Your task to perform on an android device: Open CNN.com Image 0: 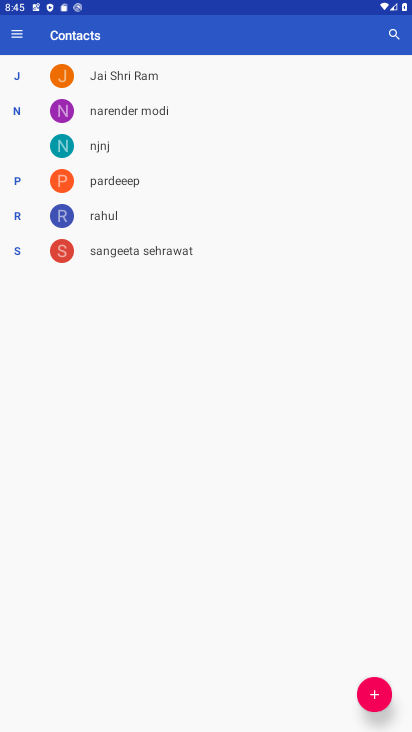
Step 0: press home button
Your task to perform on an android device: Open CNN.com Image 1: 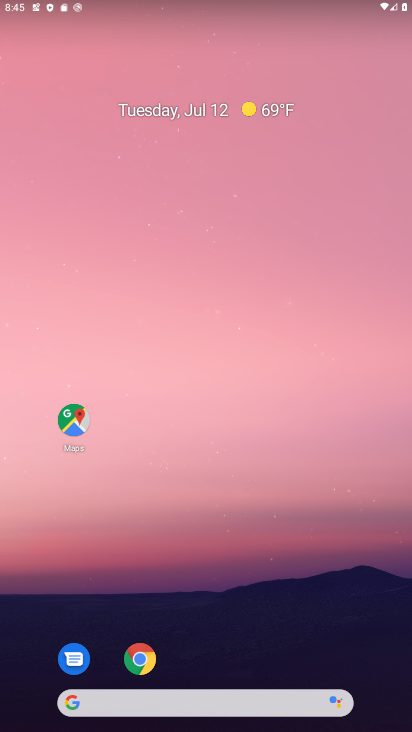
Step 1: click (143, 657)
Your task to perform on an android device: Open CNN.com Image 2: 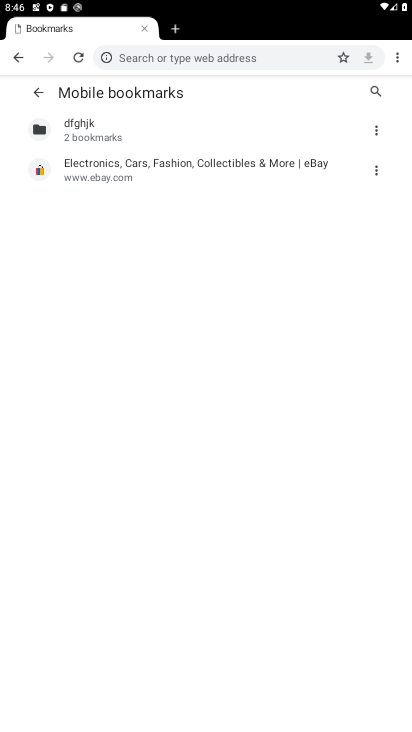
Step 2: click (397, 60)
Your task to perform on an android device: Open CNN.com Image 3: 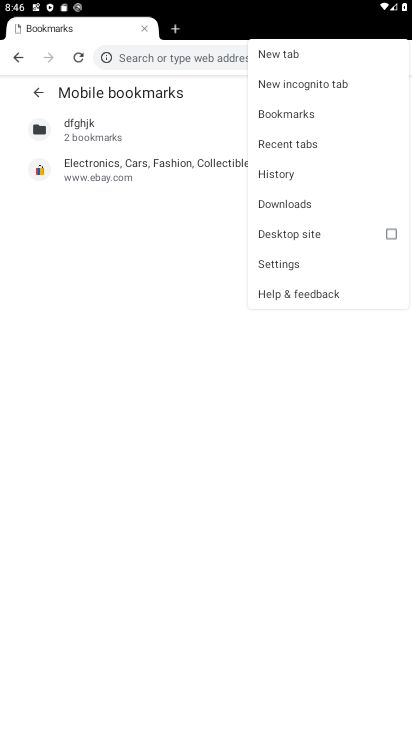
Step 3: click (293, 50)
Your task to perform on an android device: Open CNN.com Image 4: 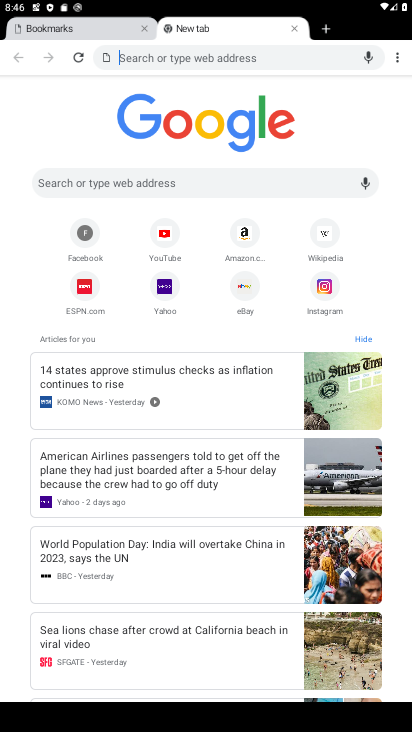
Step 4: click (220, 179)
Your task to perform on an android device: Open CNN.com Image 5: 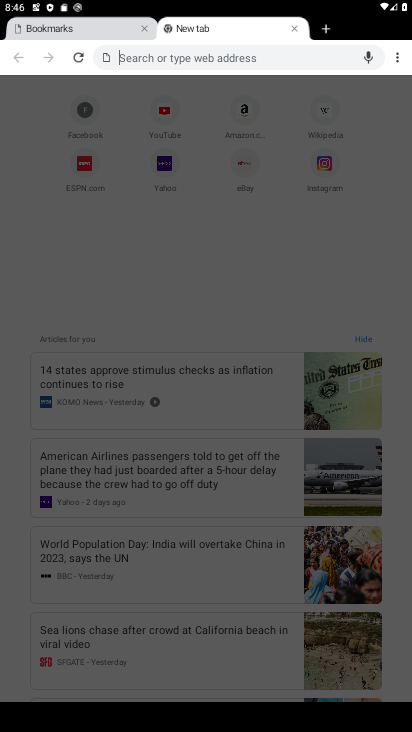
Step 5: type "CNN.com"
Your task to perform on an android device: Open CNN.com Image 6: 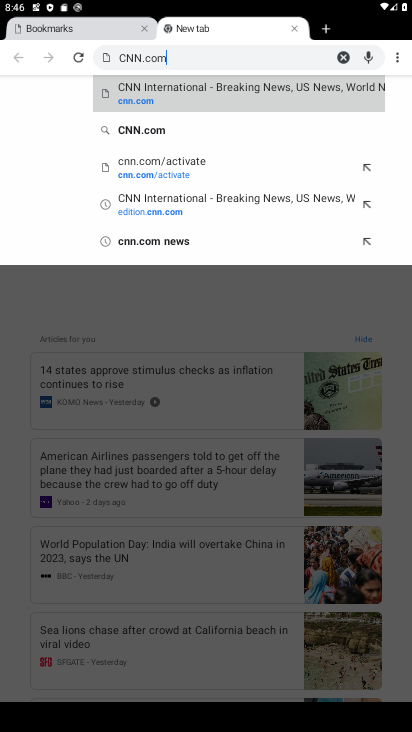
Step 6: type ""
Your task to perform on an android device: Open CNN.com Image 7: 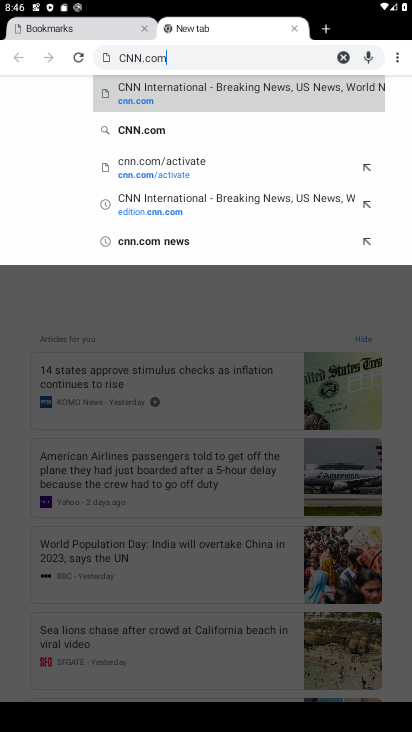
Step 7: click (163, 94)
Your task to perform on an android device: Open CNN.com Image 8: 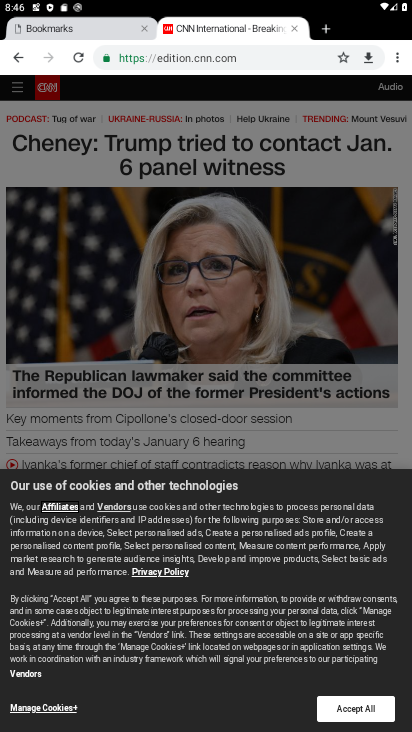
Step 8: task complete